Your task to perform on an android device: change keyboard looks Image 0: 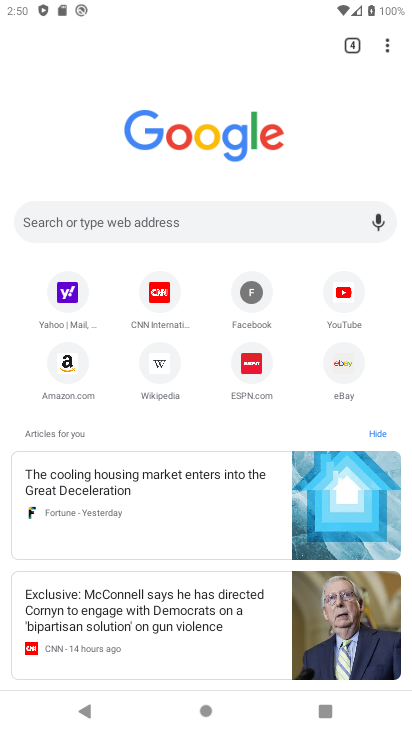
Step 0: press back button
Your task to perform on an android device: change keyboard looks Image 1: 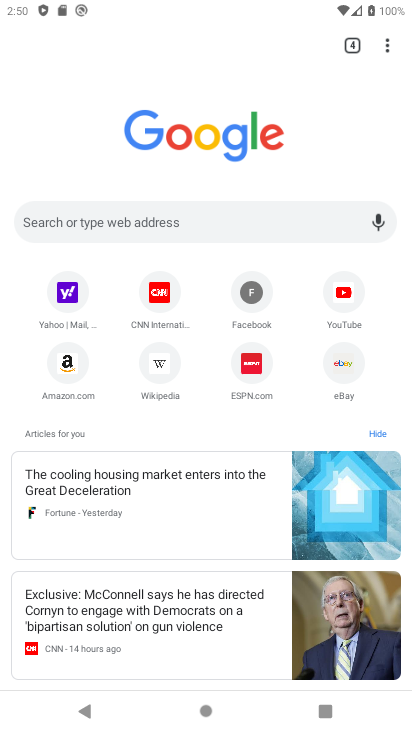
Step 1: press back button
Your task to perform on an android device: change keyboard looks Image 2: 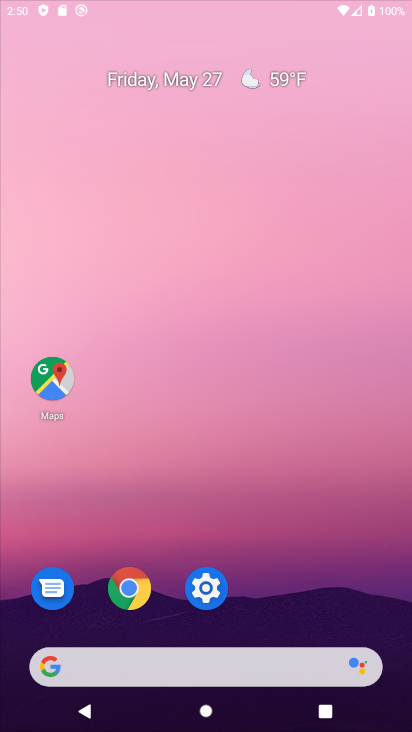
Step 2: press back button
Your task to perform on an android device: change keyboard looks Image 3: 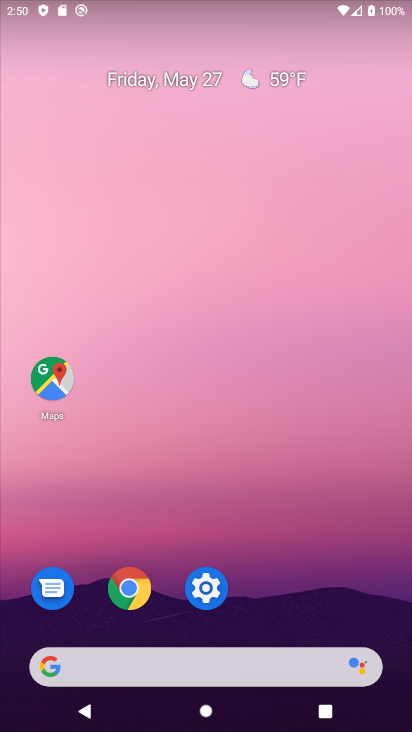
Step 3: drag from (273, 662) to (160, 200)
Your task to perform on an android device: change keyboard looks Image 4: 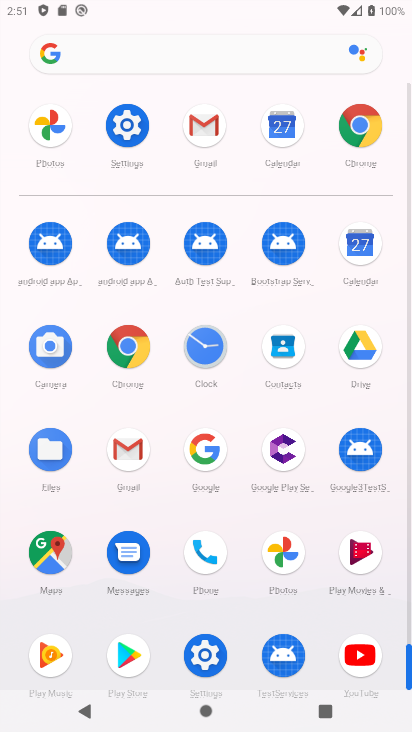
Step 4: click (200, 668)
Your task to perform on an android device: change keyboard looks Image 5: 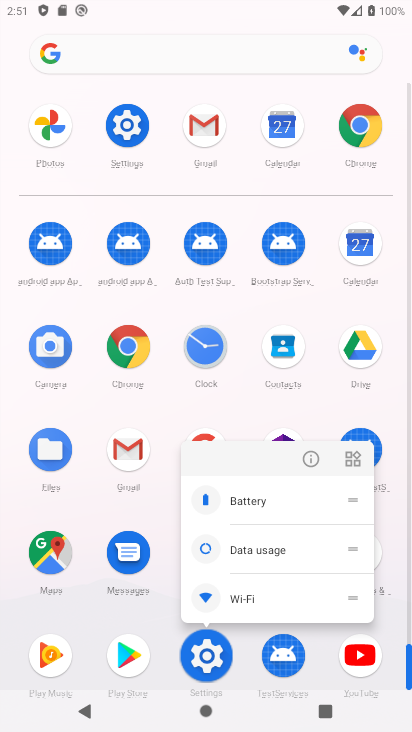
Step 5: click (205, 658)
Your task to perform on an android device: change keyboard looks Image 6: 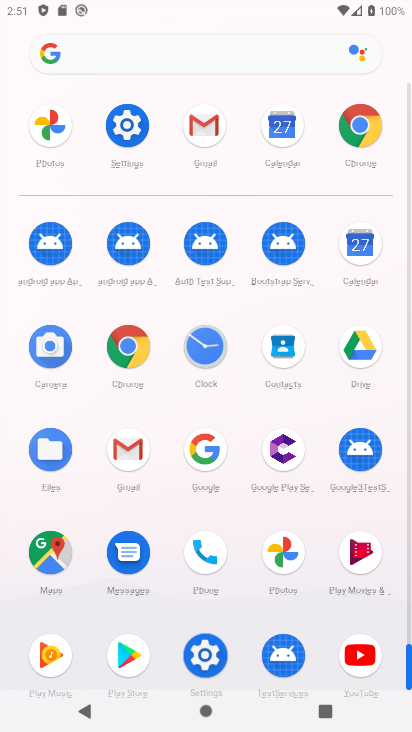
Step 6: click (205, 658)
Your task to perform on an android device: change keyboard looks Image 7: 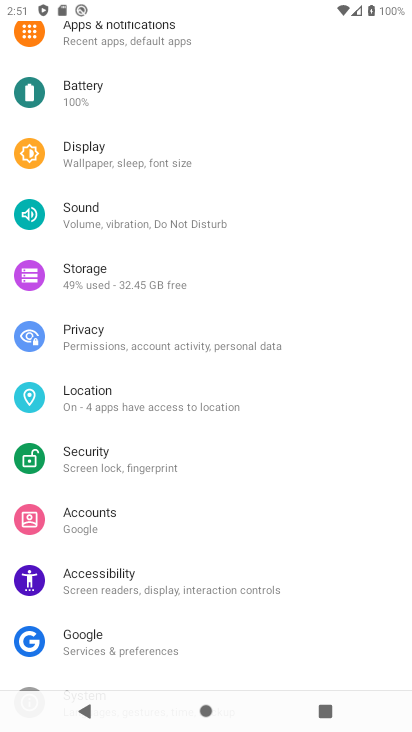
Step 7: click (209, 656)
Your task to perform on an android device: change keyboard looks Image 8: 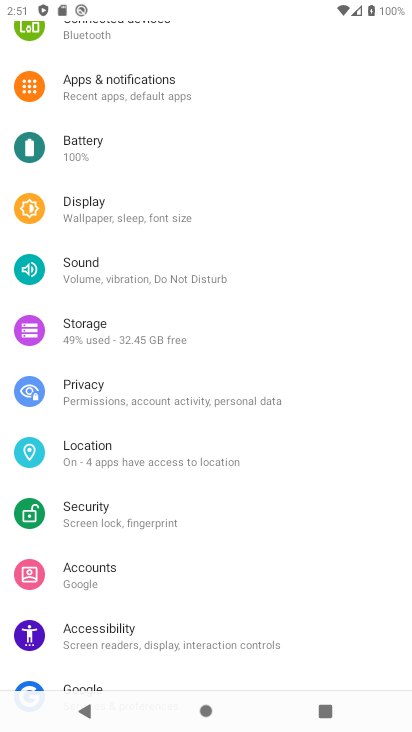
Step 8: click (209, 656)
Your task to perform on an android device: change keyboard looks Image 9: 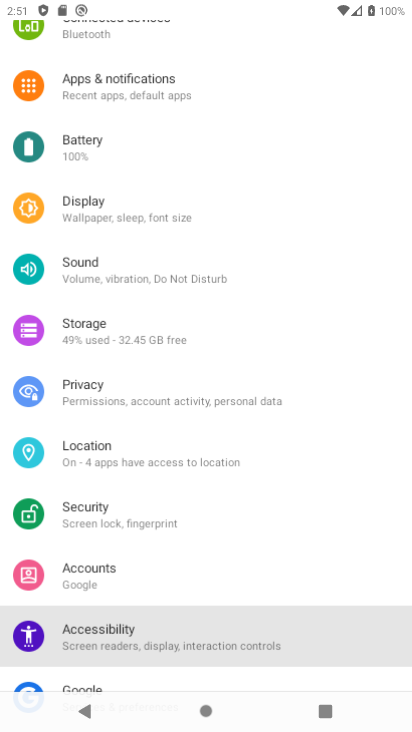
Step 9: click (210, 657)
Your task to perform on an android device: change keyboard looks Image 10: 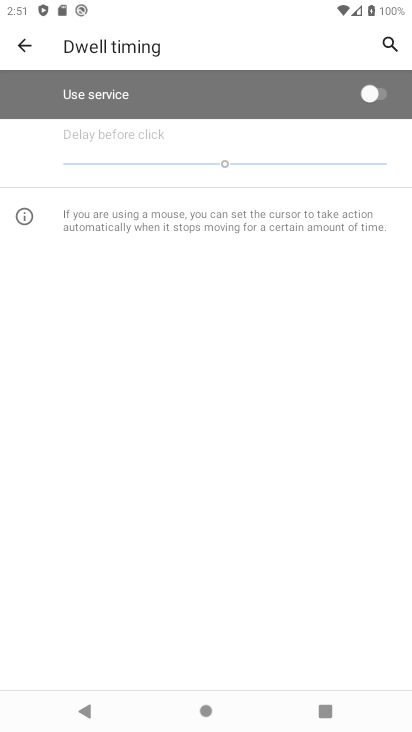
Step 10: click (22, 42)
Your task to perform on an android device: change keyboard looks Image 11: 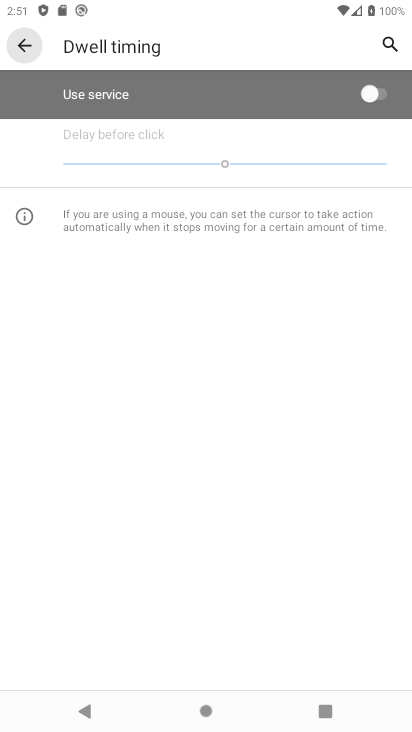
Step 11: click (22, 42)
Your task to perform on an android device: change keyboard looks Image 12: 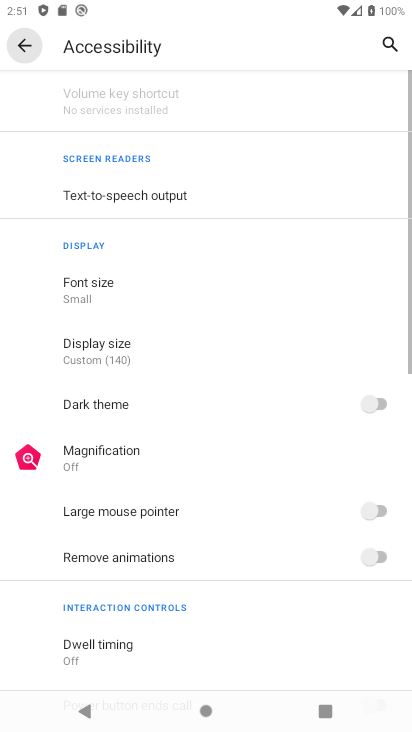
Step 12: click (22, 42)
Your task to perform on an android device: change keyboard looks Image 13: 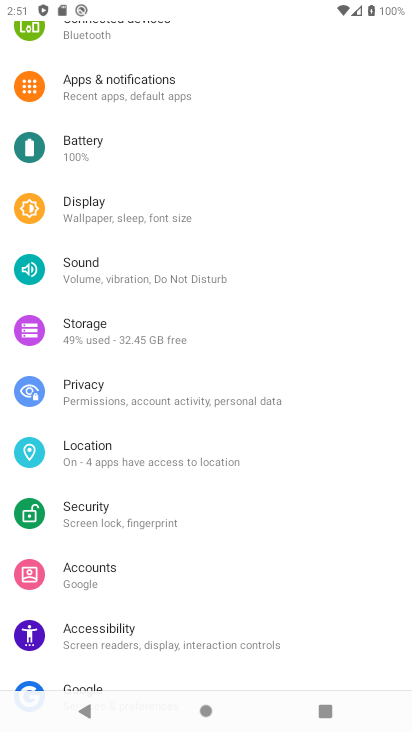
Step 13: drag from (148, 582) to (124, 289)
Your task to perform on an android device: change keyboard looks Image 14: 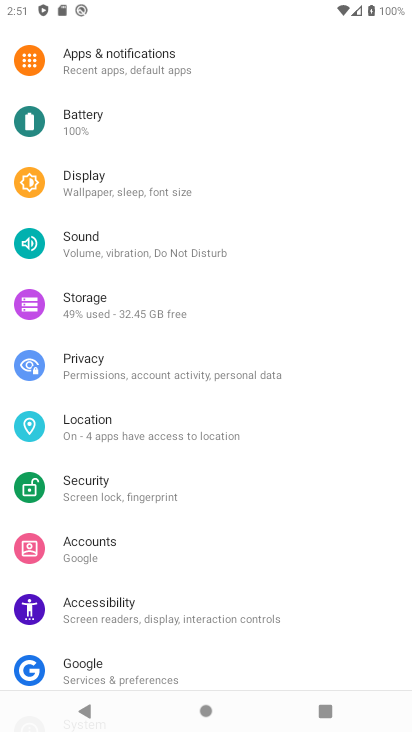
Step 14: click (120, 154)
Your task to perform on an android device: change keyboard looks Image 15: 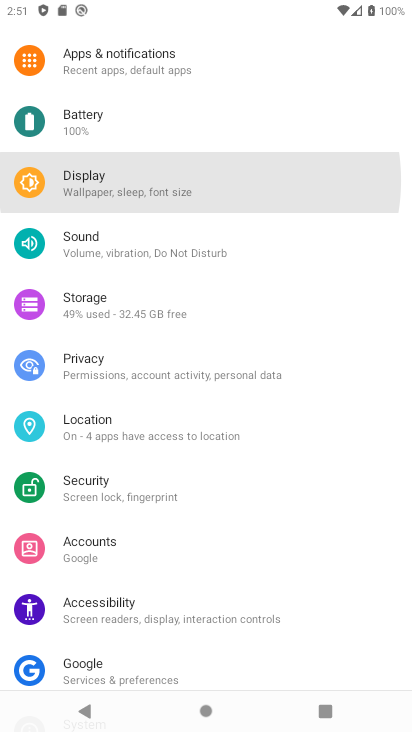
Step 15: drag from (186, 421) to (186, 140)
Your task to perform on an android device: change keyboard looks Image 16: 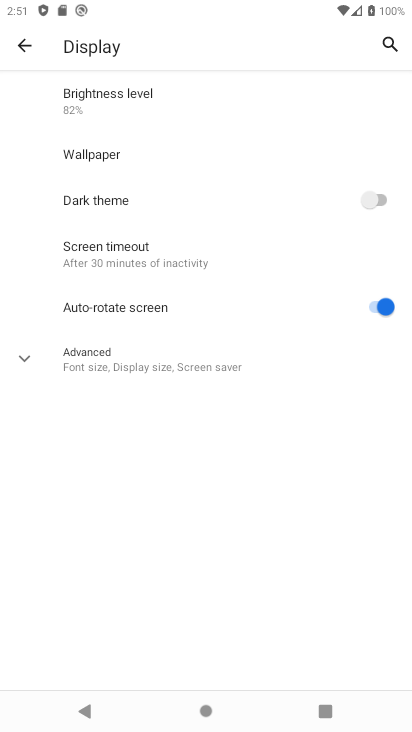
Step 16: click (27, 47)
Your task to perform on an android device: change keyboard looks Image 17: 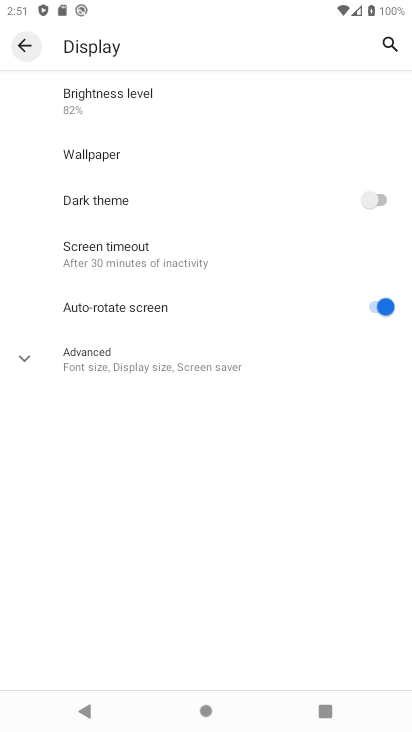
Step 17: click (27, 47)
Your task to perform on an android device: change keyboard looks Image 18: 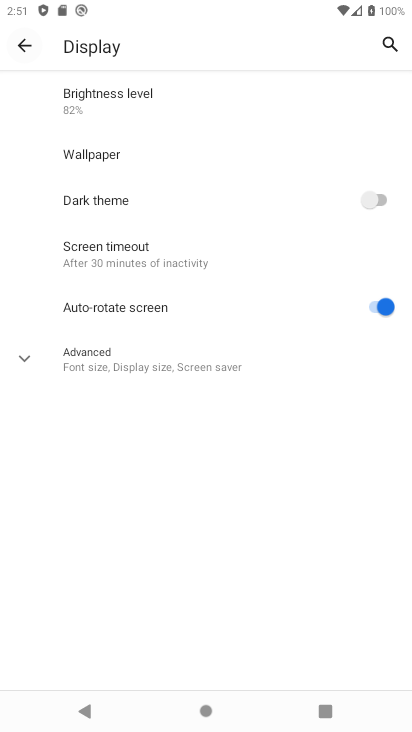
Step 18: click (27, 47)
Your task to perform on an android device: change keyboard looks Image 19: 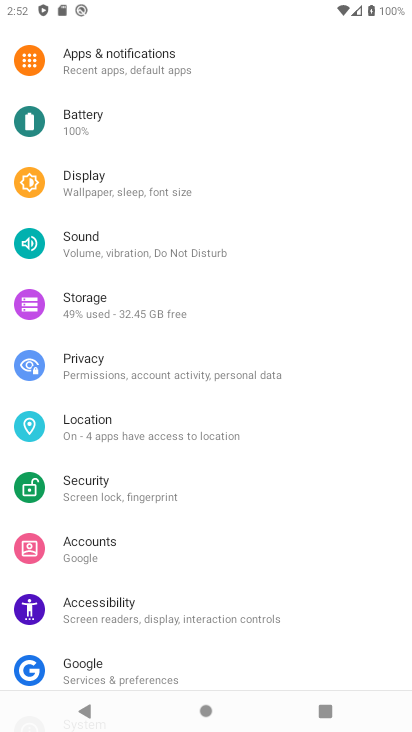
Step 19: drag from (251, 521) to (243, 224)
Your task to perform on an android device: change keyboard looks Image 20: 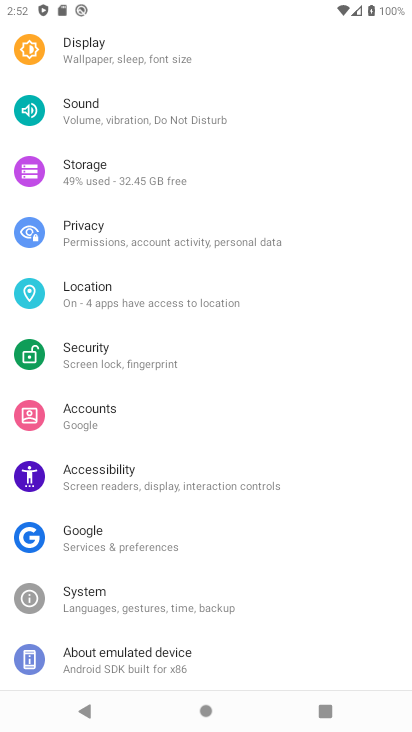
Step 20: click (91, 594)
Your task to perform on an android device: change keyboard looks Image 21: 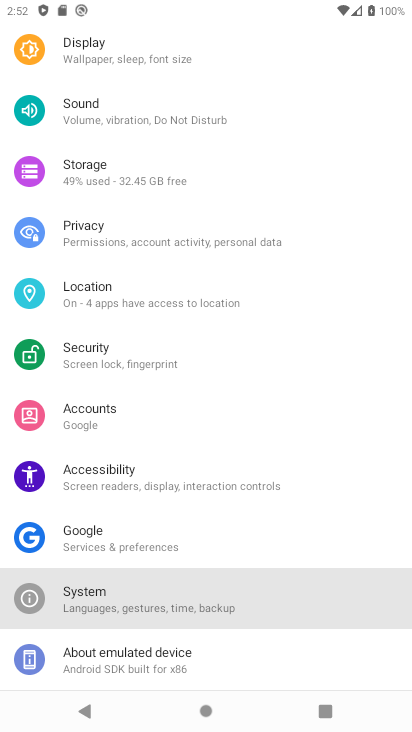
Step 21: click (89, 608)
Your task to perform on an android device: change keyboard looks Image 22: 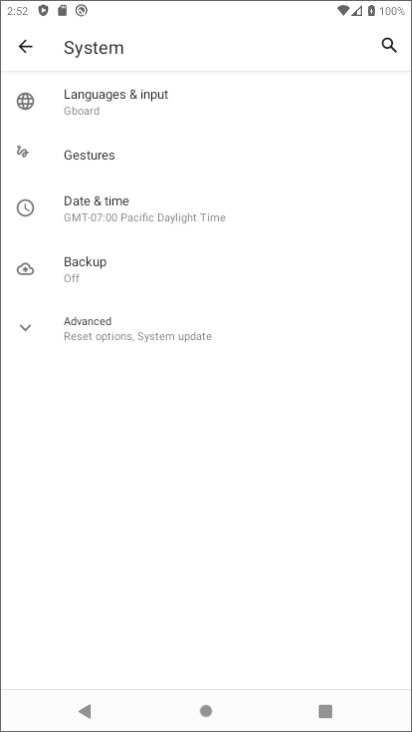
Step 22: click (90, 610)
Your task to perform on an android device: change keyboard looks Image 23: 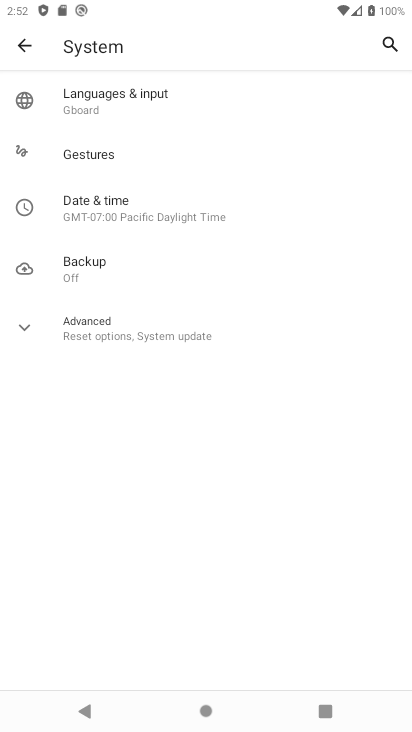
Step 23: click (94, 104)
Your task to perform on an android device: change keyboard looks Image 24: 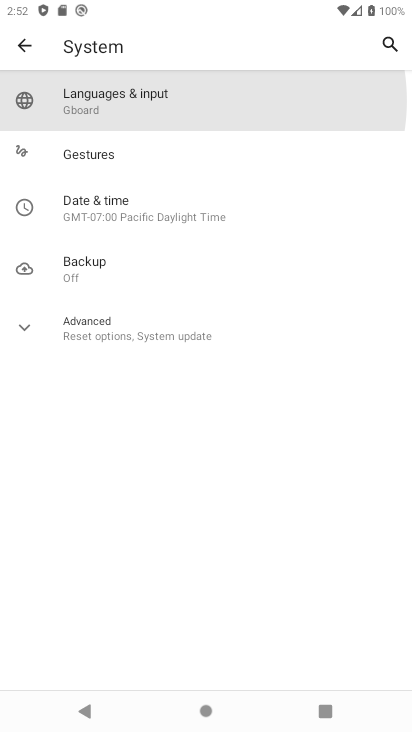
Step 24: click (90, 103)
Your task to perform on an android device: change keyboard looks Image 25: 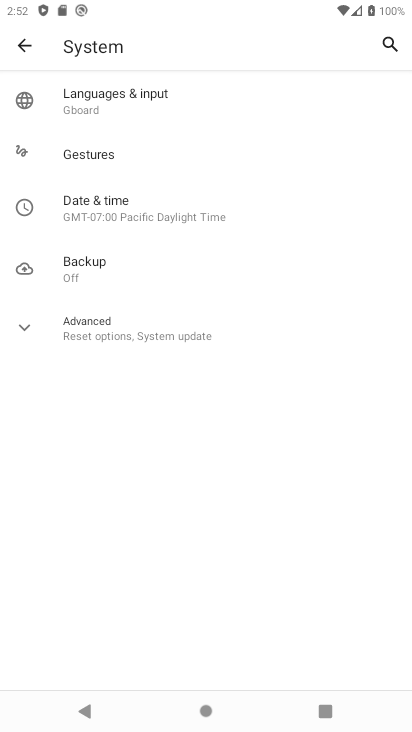
Step 25: click (89, 102)
Your task to perform on an android device: change keyboard looks Image 26: 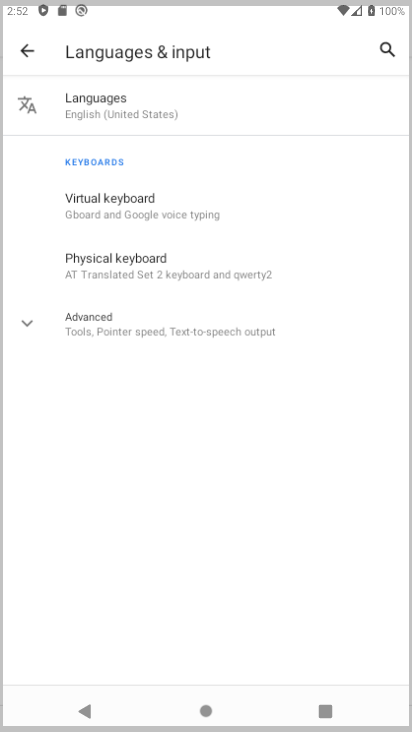
Step 26: click (88, 102)
Your task to perform on an android device: change keyboard looks Image 27: 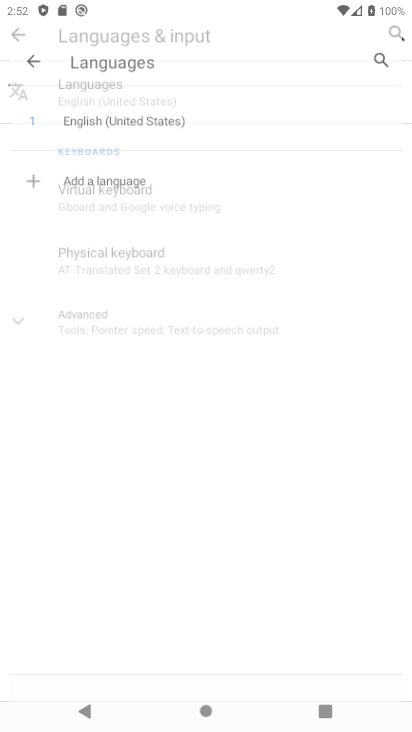
Step 27: click (87, 101)
Your task to perform on an android device: change keyboard looks Image 28: 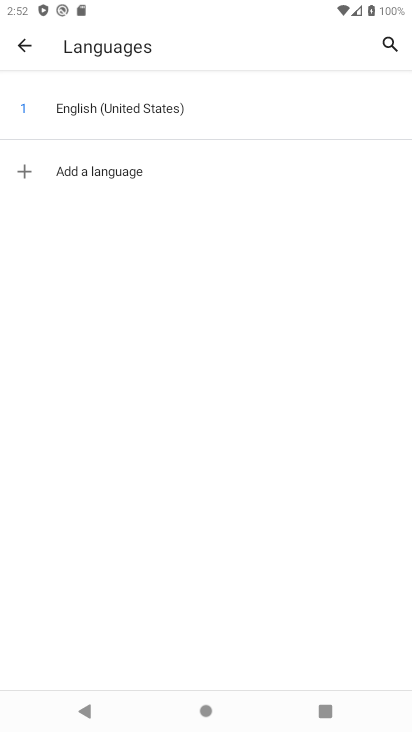
Step 28: click (15, 39)
Your task to perform on an android device: change keyboard looks Image 29: 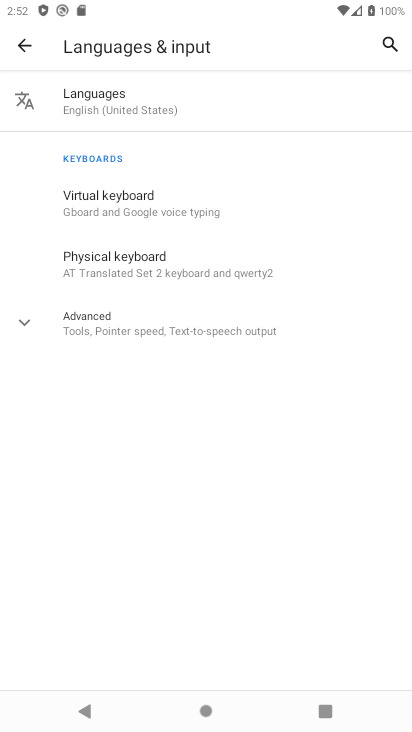
Step 29: click (101, 208)
Your task to perform on an android device: change keyboard looks Image 30: 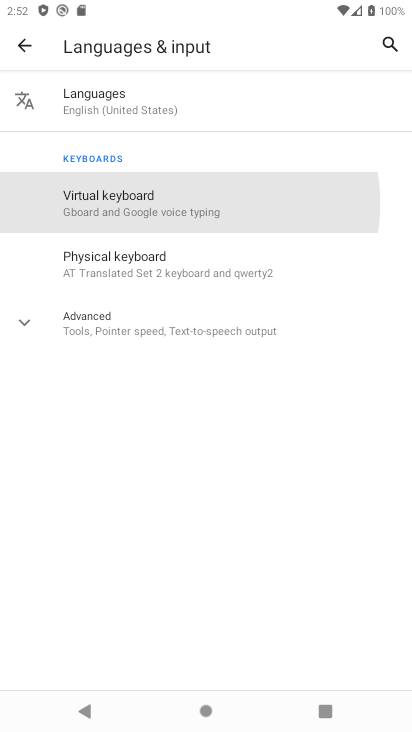
Step 30: click (101, 208)
Your task to perform on an android device: change keyboard looks Image 31: 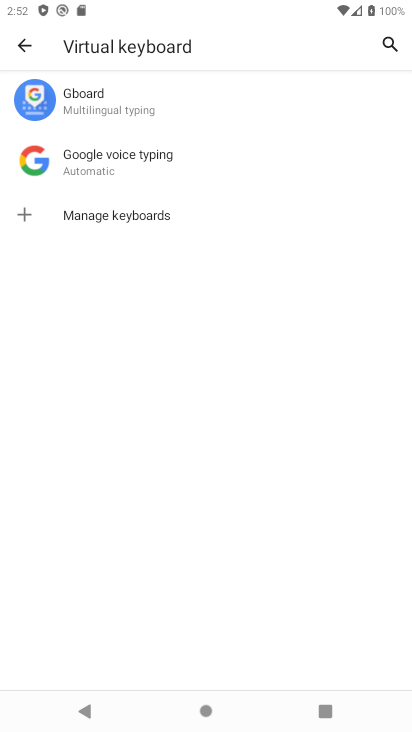
Step 31: click (87, 98)
Your task to perform on an android device: change keyboard looks Image 32: 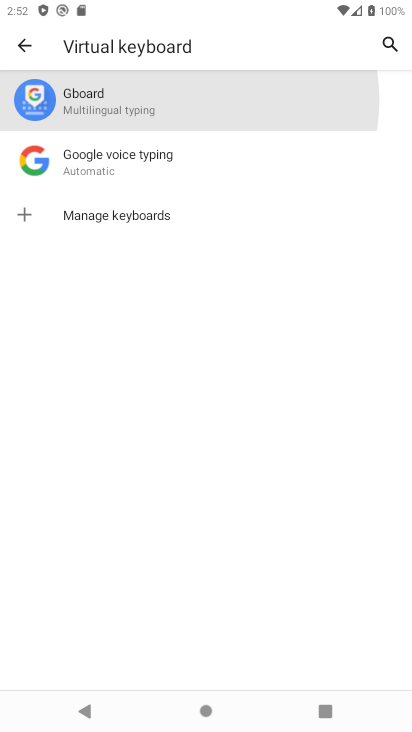
Step 32: click (87, 98)
Your task to perform on an android device: change keyboard looks Image 33: 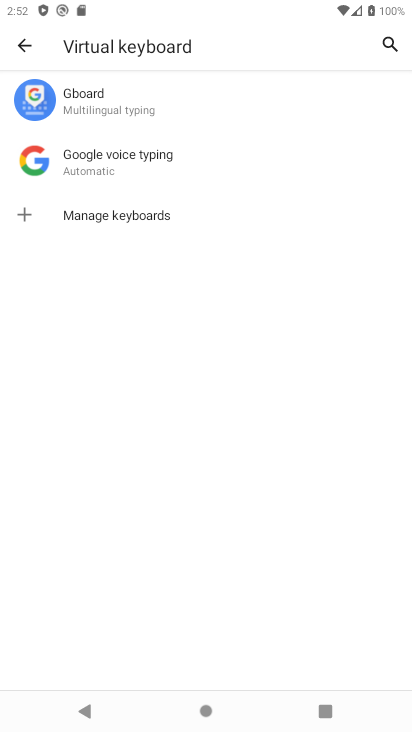
Step 33: click (87, 98)
Your task to perform on an android device: change keyboard looks Image 34: 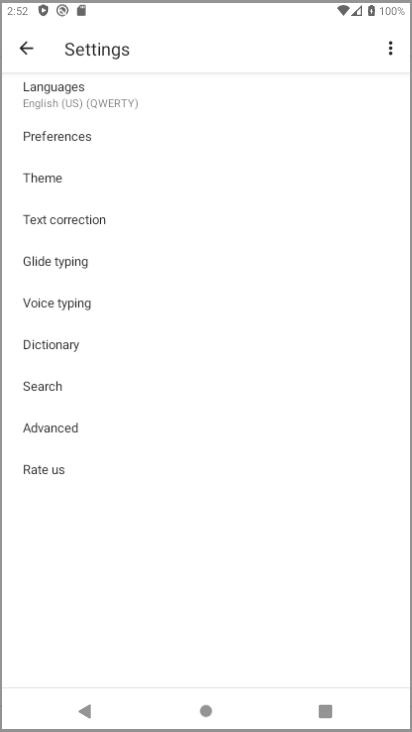
Step 34: click (87, 98)
Your task to perform on an android device: change keyboard looks Image 35: 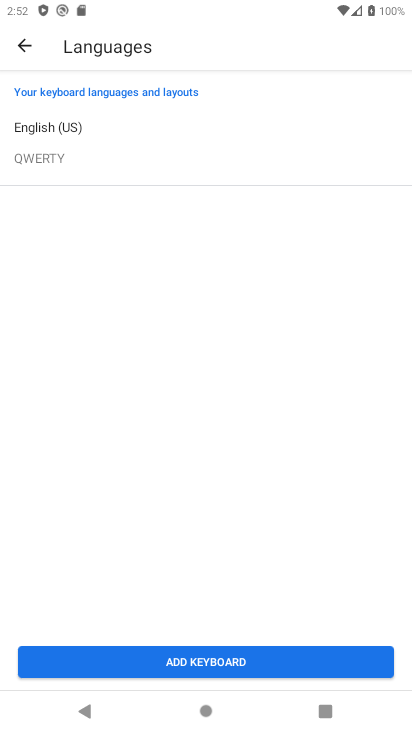
Step 35: click (25, 45)
Your task to perform on an android device: change keyboard looks Image 36: 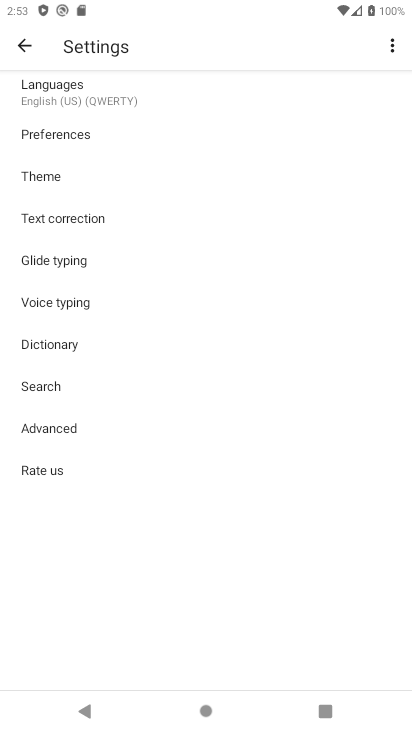
Step 36: click (38, 178)
Your task to perform on an android device: change keyboard looks Image 37: 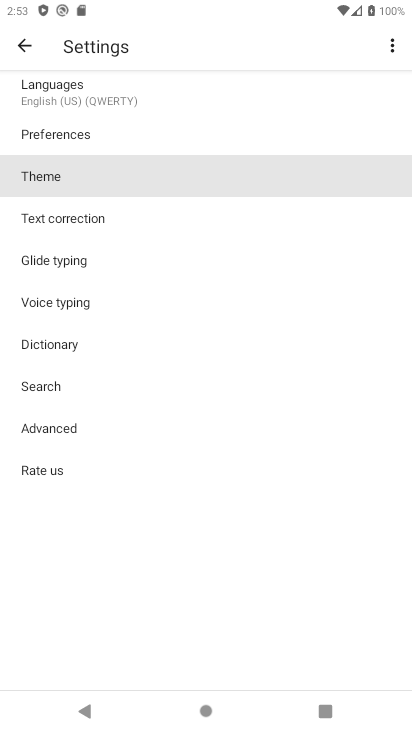
Step 37: click (38, 178)
Your task to perform on an android device: change keyboard looks Image 38: 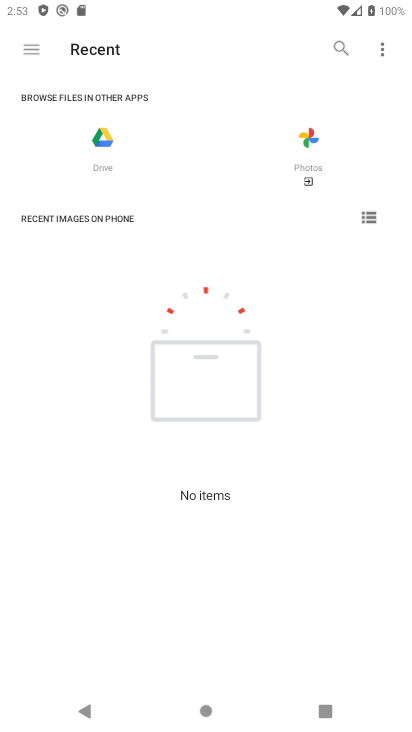
Step 38: task complete